Your task to perform on an android device: install app "TextNow: Call + Text Unlimited" Image 0: 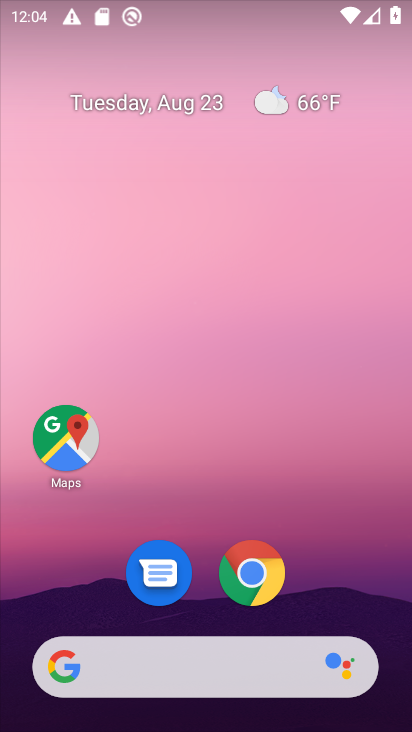
Step 0: drag from (213, 517) to (214, 124)
Your task to perform on an android device: install app "TextNow: Call + Text Unlimited" Image 1: 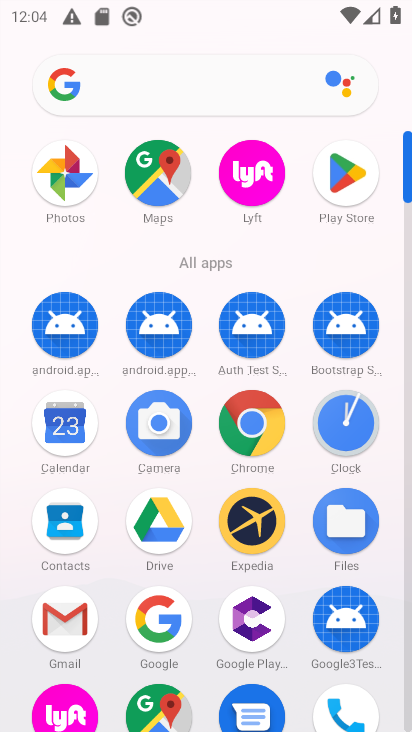
Step 1: click (331, 175)
Your task to perform on an android device: install app "TextNow: Call + Text Unlimited" Image 2: 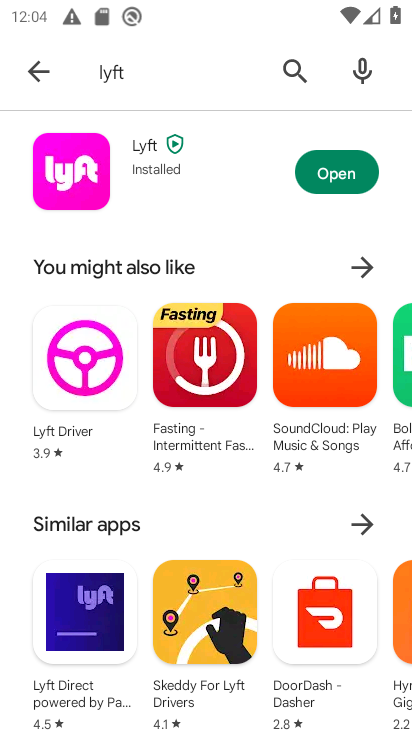
Step 2: click (305, 72)
Your task to perform on an android device: install app "TextNow: Call + Text Unlimited" Image 3: 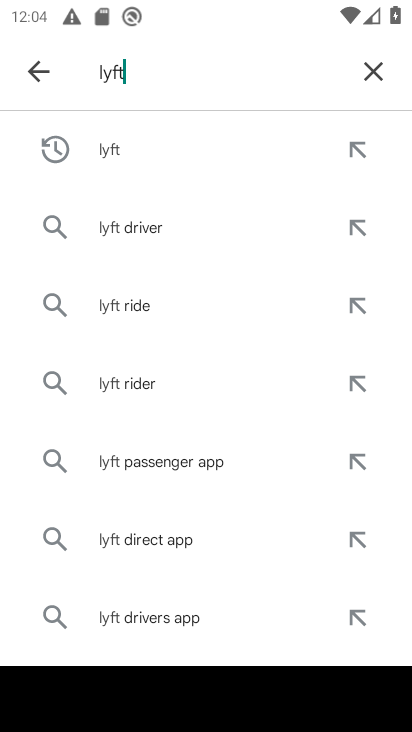
Step 3: click (357, 68)
Your task to perform on an android device: install app "TextNow: Call + Text Unlimited" Image 4: 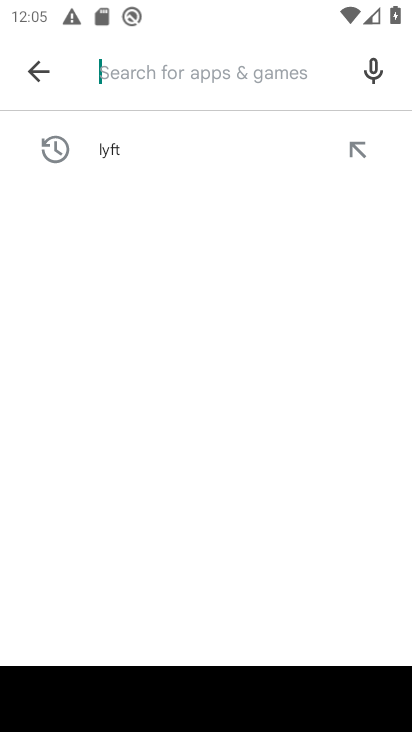
Step 4: type "TextNow: Call + Text Unlimited"
Your task to perform on an android device: install app "TextNow: Call + Text Unlimited" Image 5: 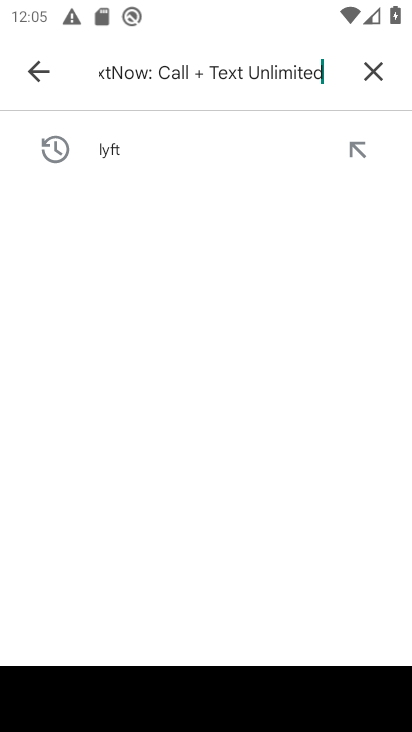
Step 5: type ""
Your task to perform on an android device: install app "TextNow: Call + Text Unlimited" Image 6: 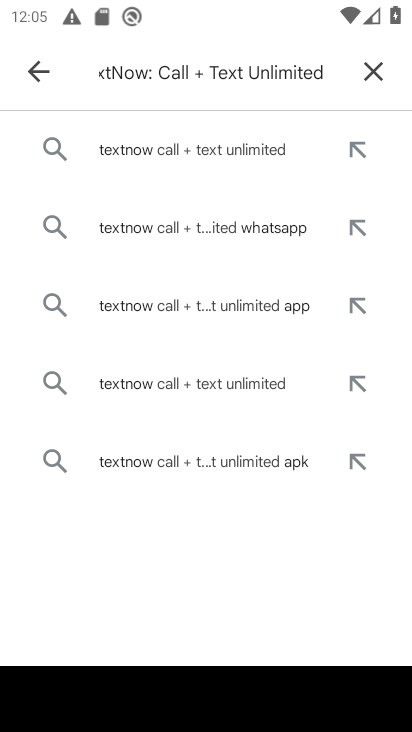
Step 6: click (217, 149)
Your task to perform on an android device: install app "TextNow: Call + Text Unlimited" Image 7: 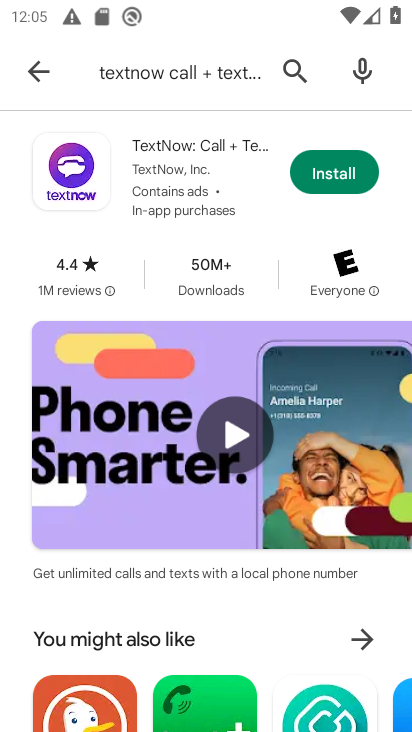
Step 7: click (325, 158)
Your task to perform on an android device: install app "TextNow: Call + Text Unlimited" Image 8: 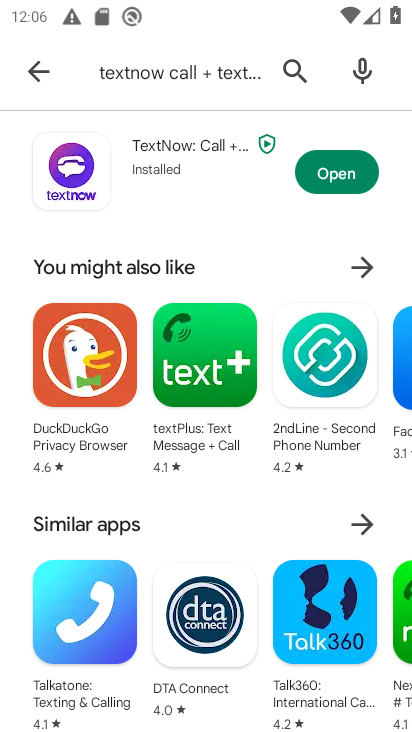
Step 8: task complete